Your task to perform on an android device: Is it going to rain this weekend? Image 0: 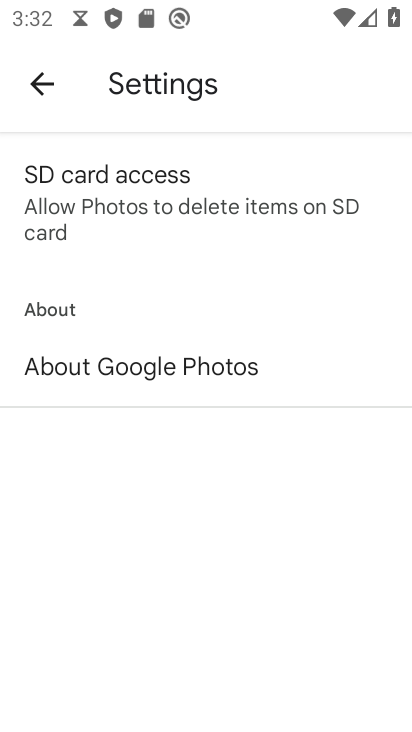
Step 0: press home button
Your task to perform on an android device: Is it going to rain this weekend? Image 1: 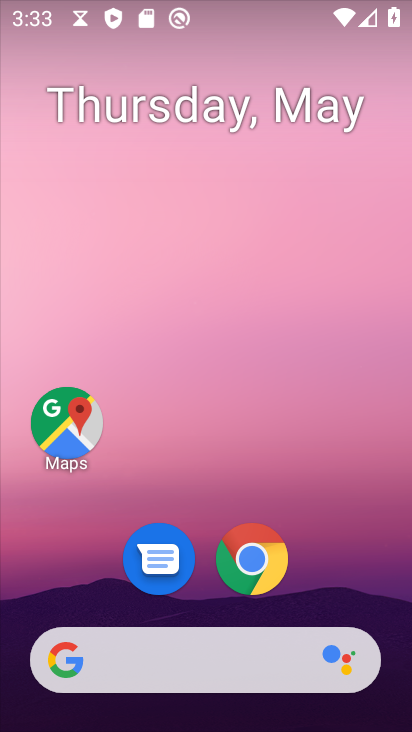
Step 1: drag from (341, 433) to (325, 158)
Your task to perform on an android device: Is it going to rain this weekend? Image 2: 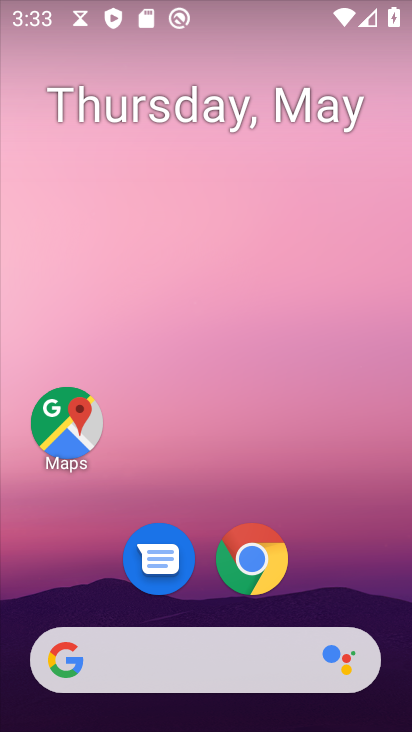
Step 2: drag from (305, 542) to (316, 121)
Your task to perform on an android device: Is it going to rain this weekend? Image 3: 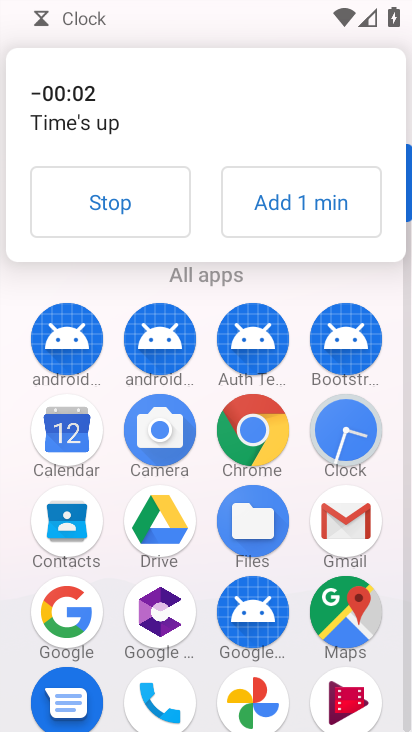
Step 3: click (139, 201)
Your task to perform on an android device: Is it going to rain this weekend? Image 4: 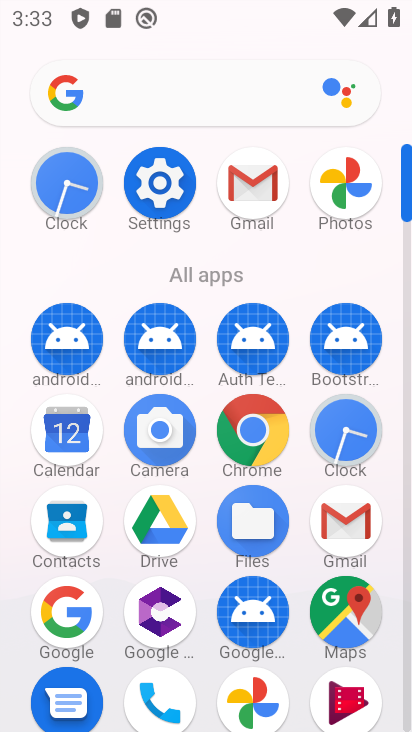
Step 4: click (258, 440)
Your task to perform on an android device: Is it going to rain this weekend? Image 5: 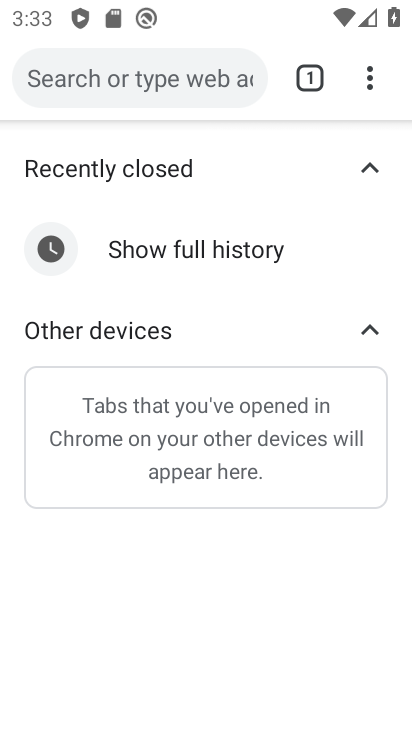
Step 5: click (209, 91)
Your task to perform on an android device: Is it going to rain this weekend? Image 6: 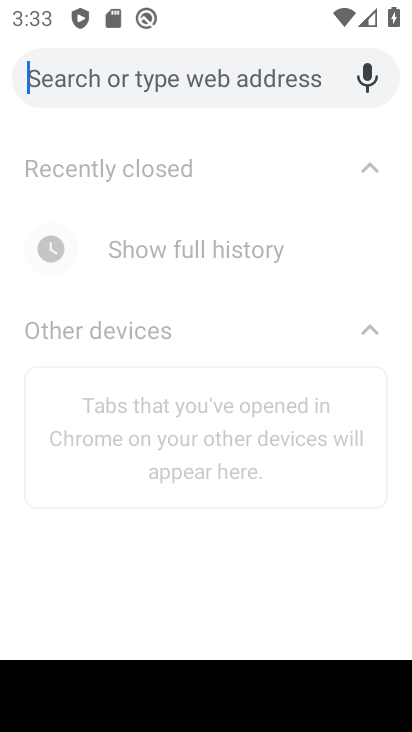
Step 6: type "is it going to rain this weekend"
Your task to perform on an android device: Is it going to rain this weekend? Image 7: 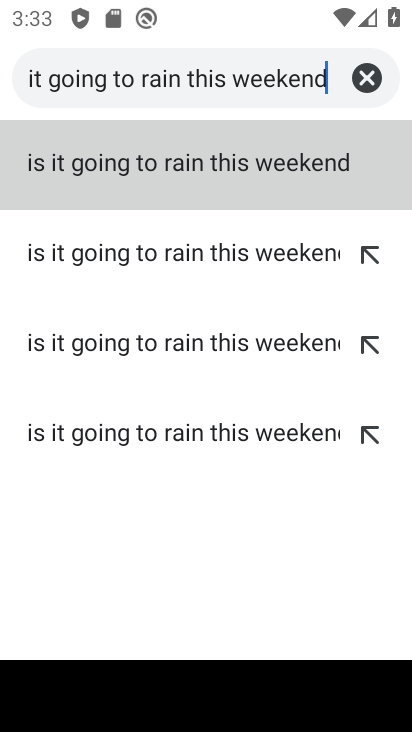
Step 7: click (224, 185)
Your task to perform on an android device: Is it going to rain this weekend? Image 8: 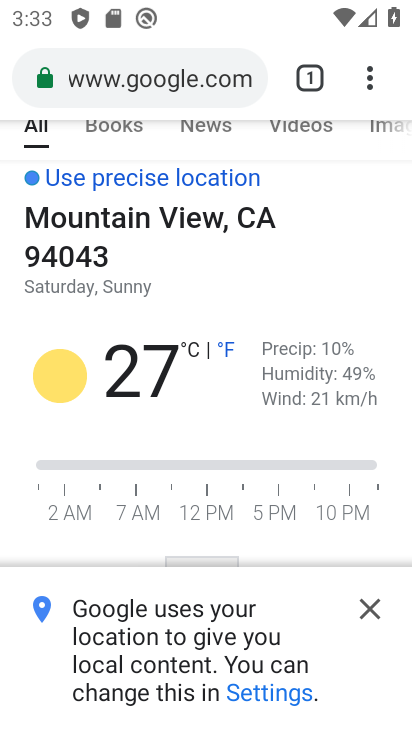
Step 8: task complete